Your task to perform on an android device: Go to Amazon Image 0: 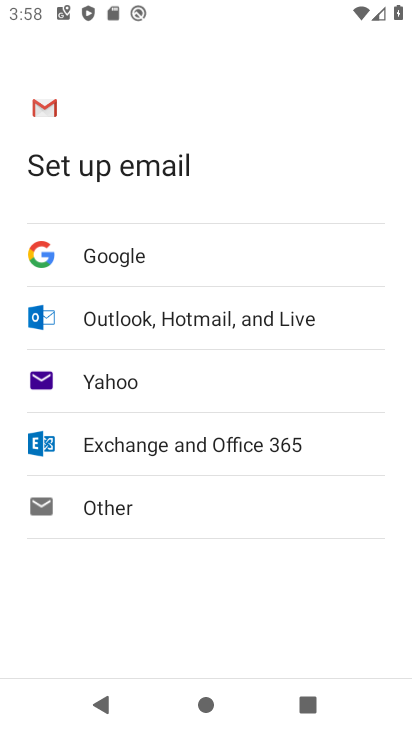
Step 0: press home button
Your task to perform on an android device: Go to Amazon Image 1: 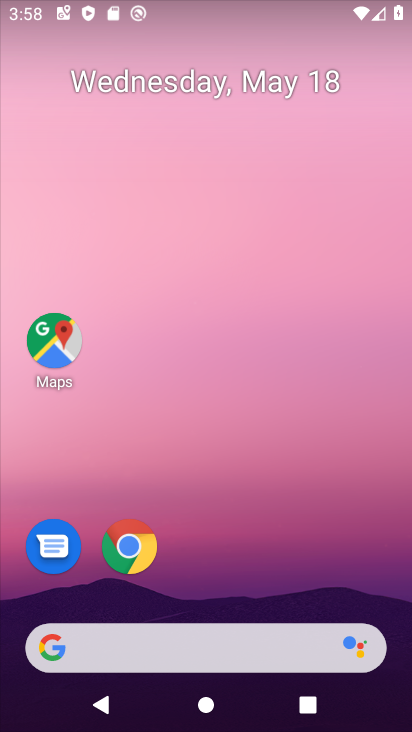
Step 1: click (137, 544)
Your task to perform on an android device: Go to Amazon Image 2: 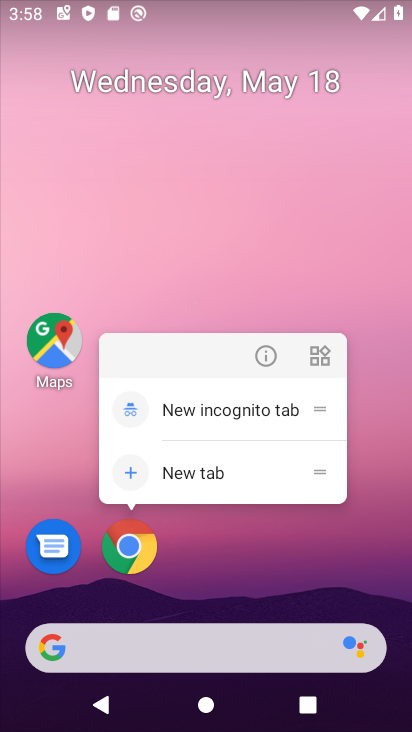
Step 2: click (139, 549)
Your task to perform on an android device: Go to Amazon Image 3: 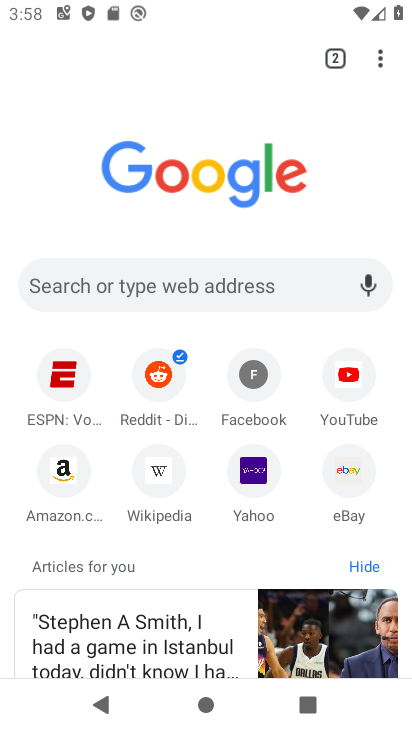
Step 3: click (82, 481)
Your task to perform on an android device: Go to Amazon Image 4: 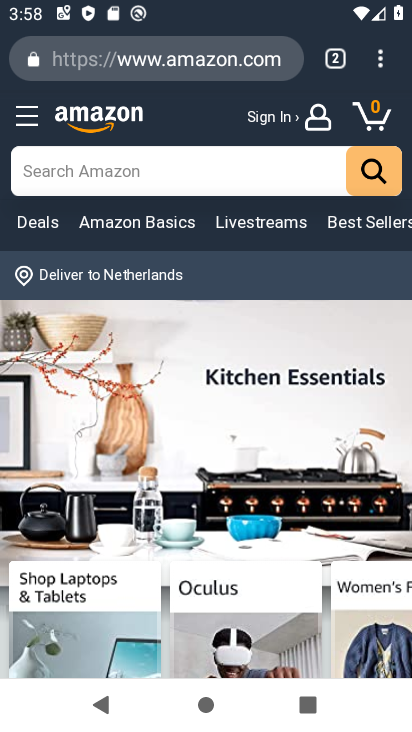
Step 4: task complete